Your task to perform on an android device: Go to eBay Image 0: 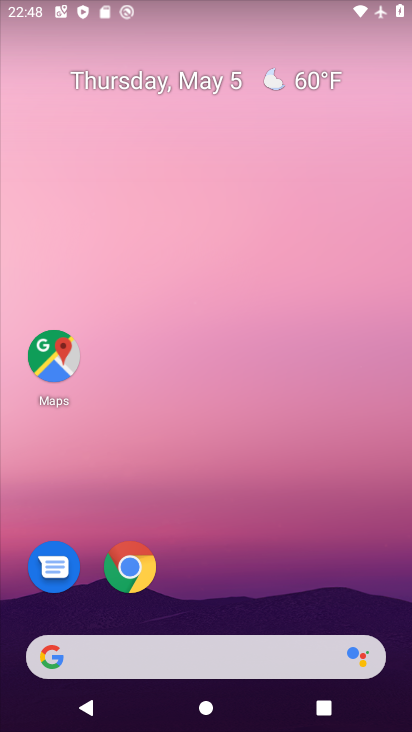
Step 0: click (134, 556)
Your task to perform on an android device: Go to eBay Image 1: 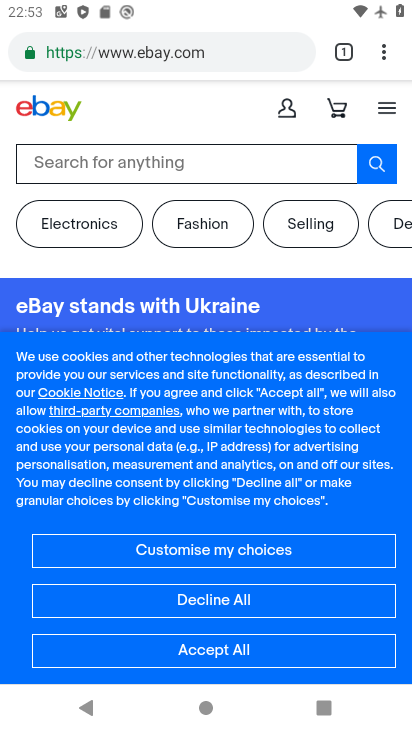
Step 1: task complete